Your task to perform on an android device: Open the map Image 0: 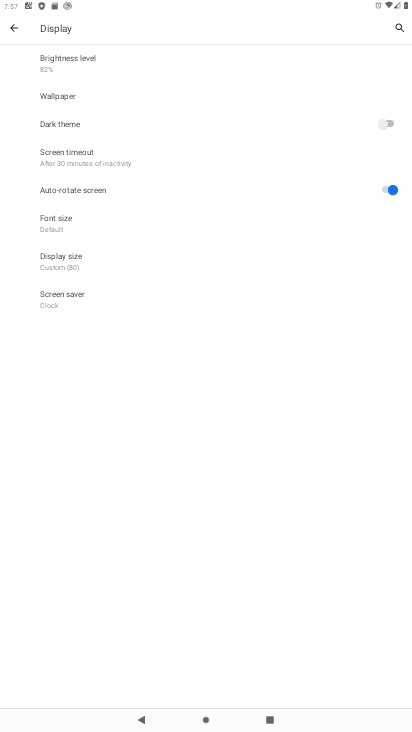
Step 0: press home button
Your task to perform on an android device: Open the map Image 1: 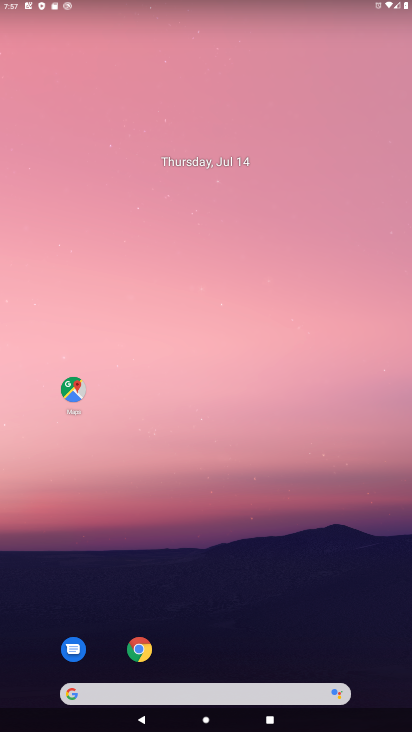
Step 1: click (70, 384)
Your task to perform on an android device: Open the map Image 2: 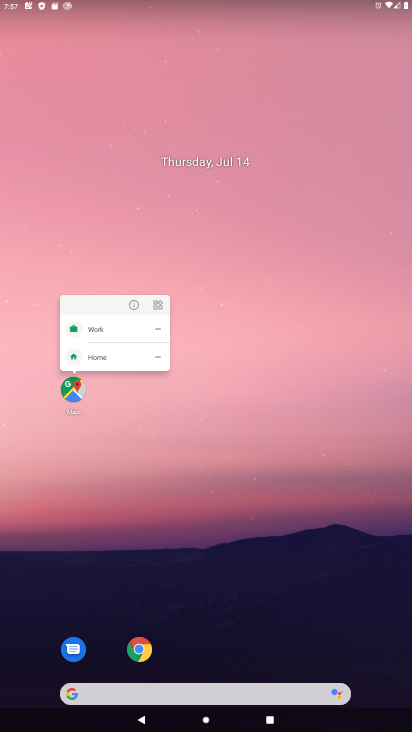
Step 2: click (71, 386)
Your task to perform on an android device: Open the map Image 3: 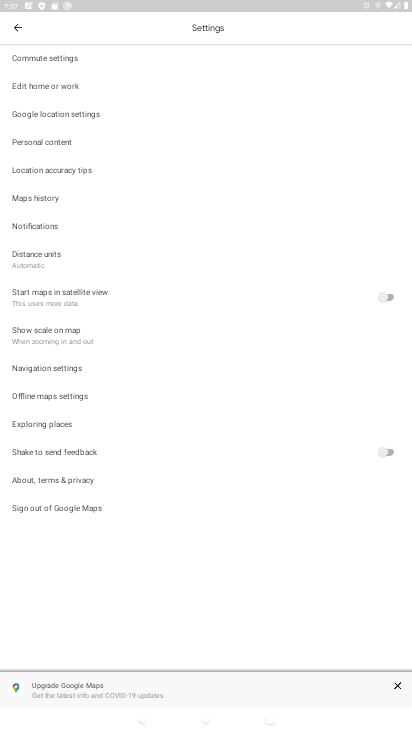
Step 3: click (18, 28)
Your task to perform on an android device: Open the map Image 4: 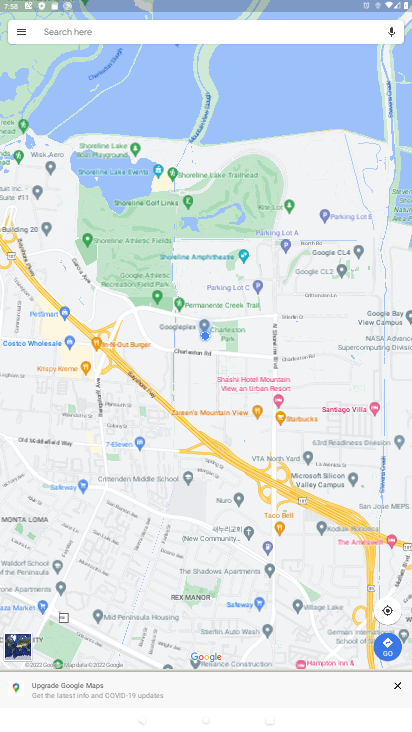
Step 4: task complete